Your task to perform on an android device: Open Youtube and go to "Your channel" Image 0: 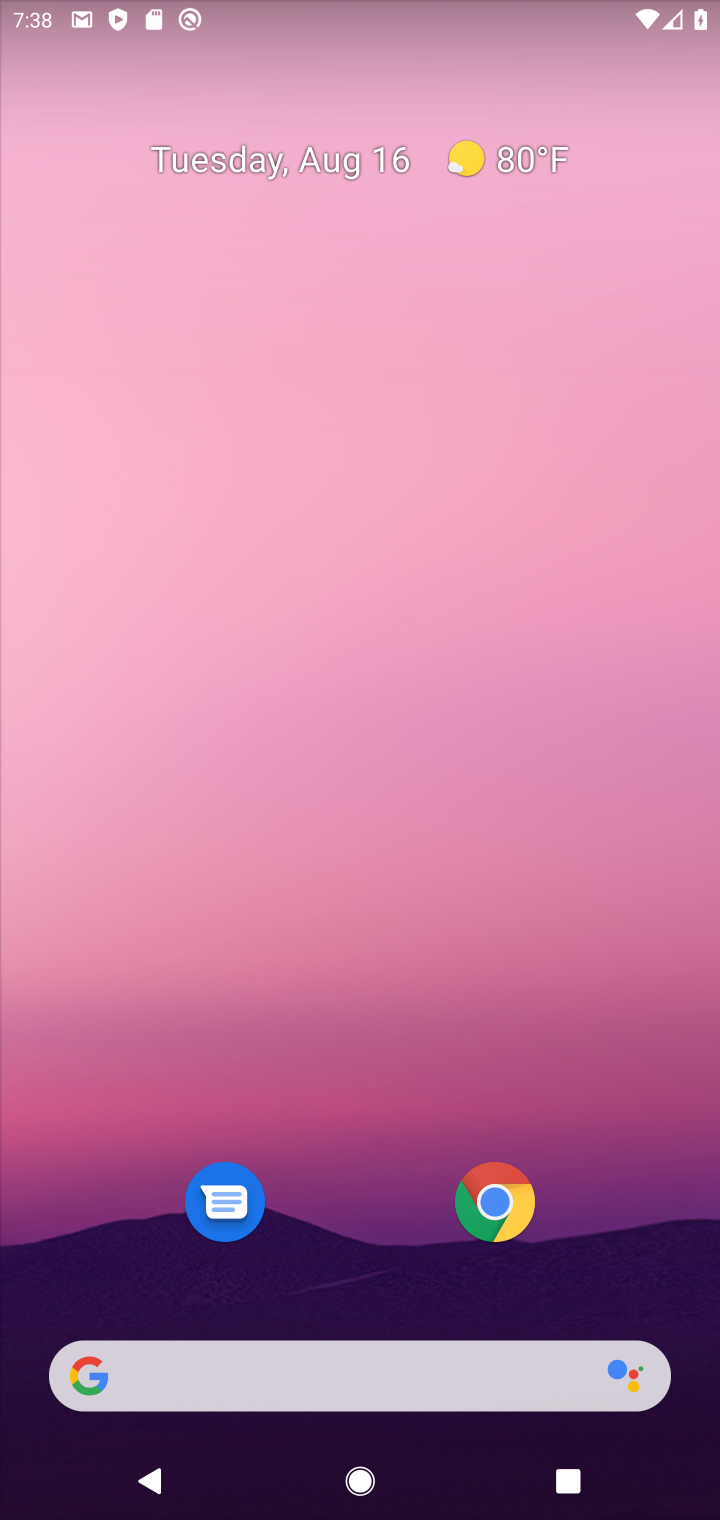
Step 0: drag from (361, 1324) to (410, 363)
Your task to perform on an android device: Open Youtube and go to "Your channel" Image 1: 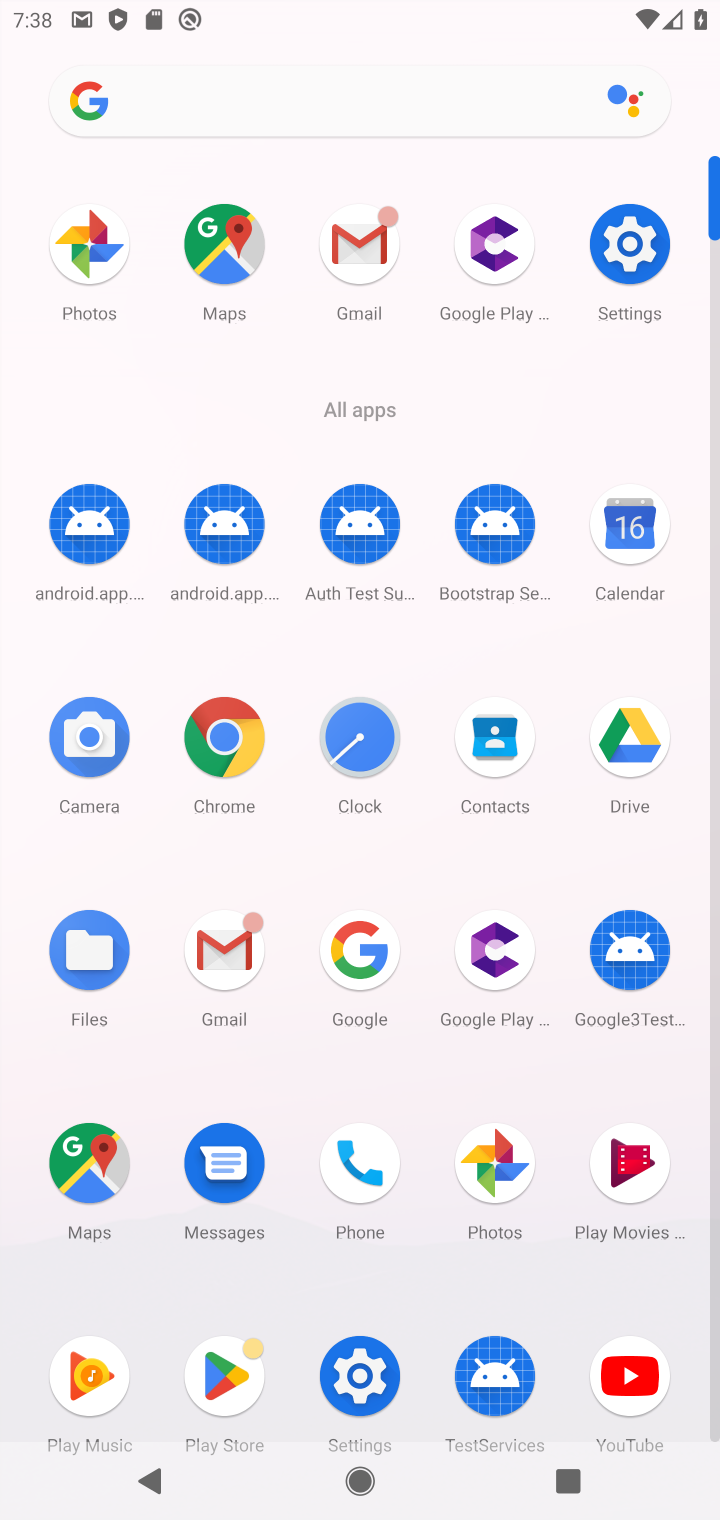
Step 1: click (601, 1380)
Your task to perform on an android device: Open Youtube and go to "Your channel" Image 2: 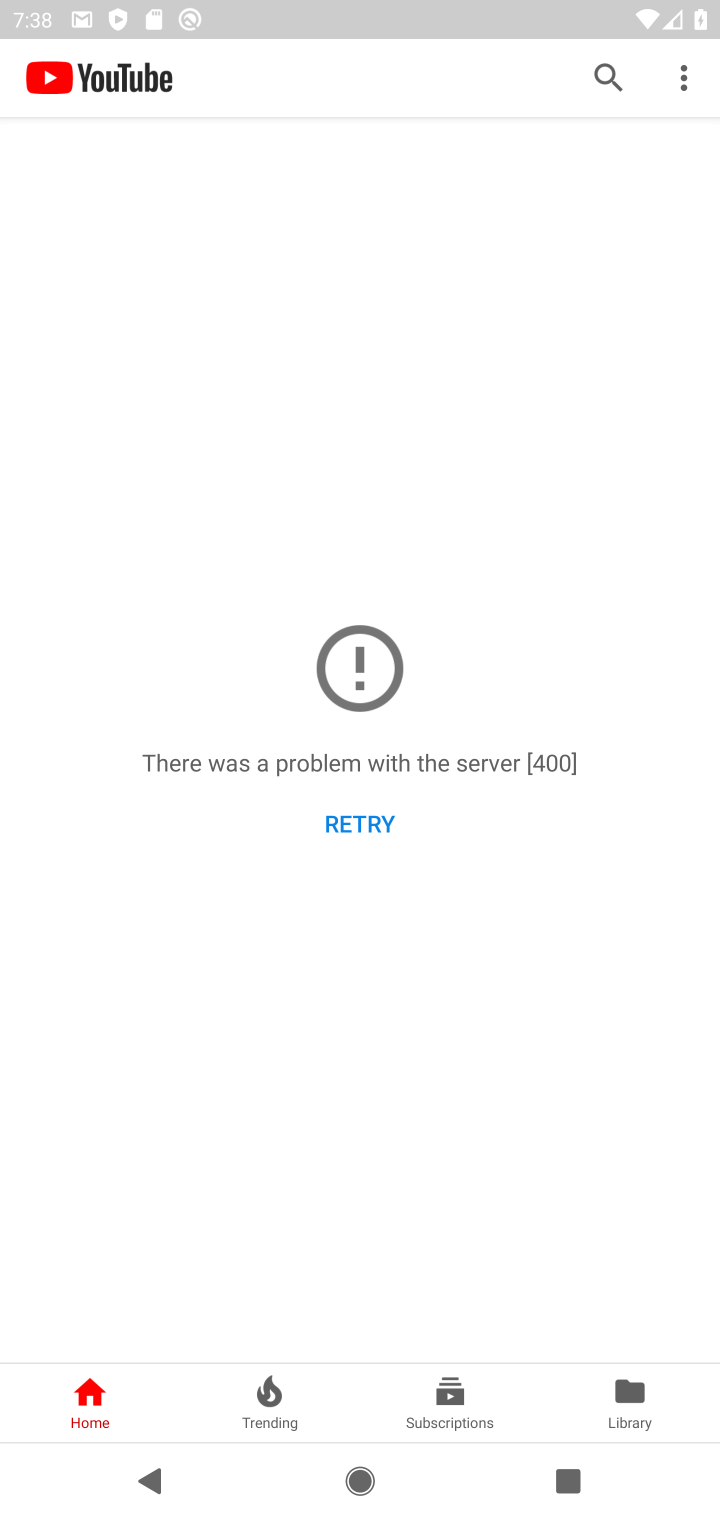
Step 2: click (614, 1375)
Your task to perform on an android device: Open Youtube and go to "Your channel" Image 3: 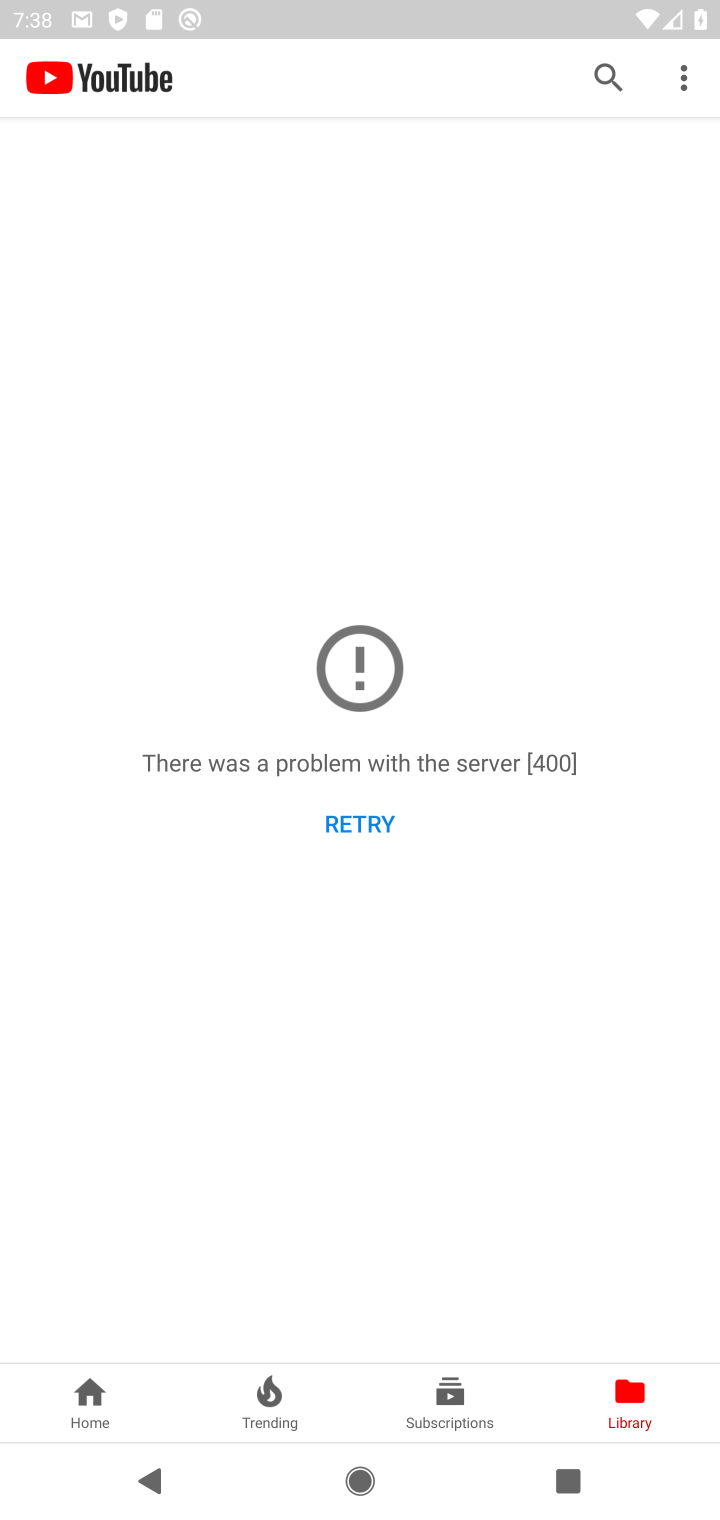
Step 3: click (679, 70)
Your task to perform on an android device: Open Youtube and go to "Your channel" Image 4: 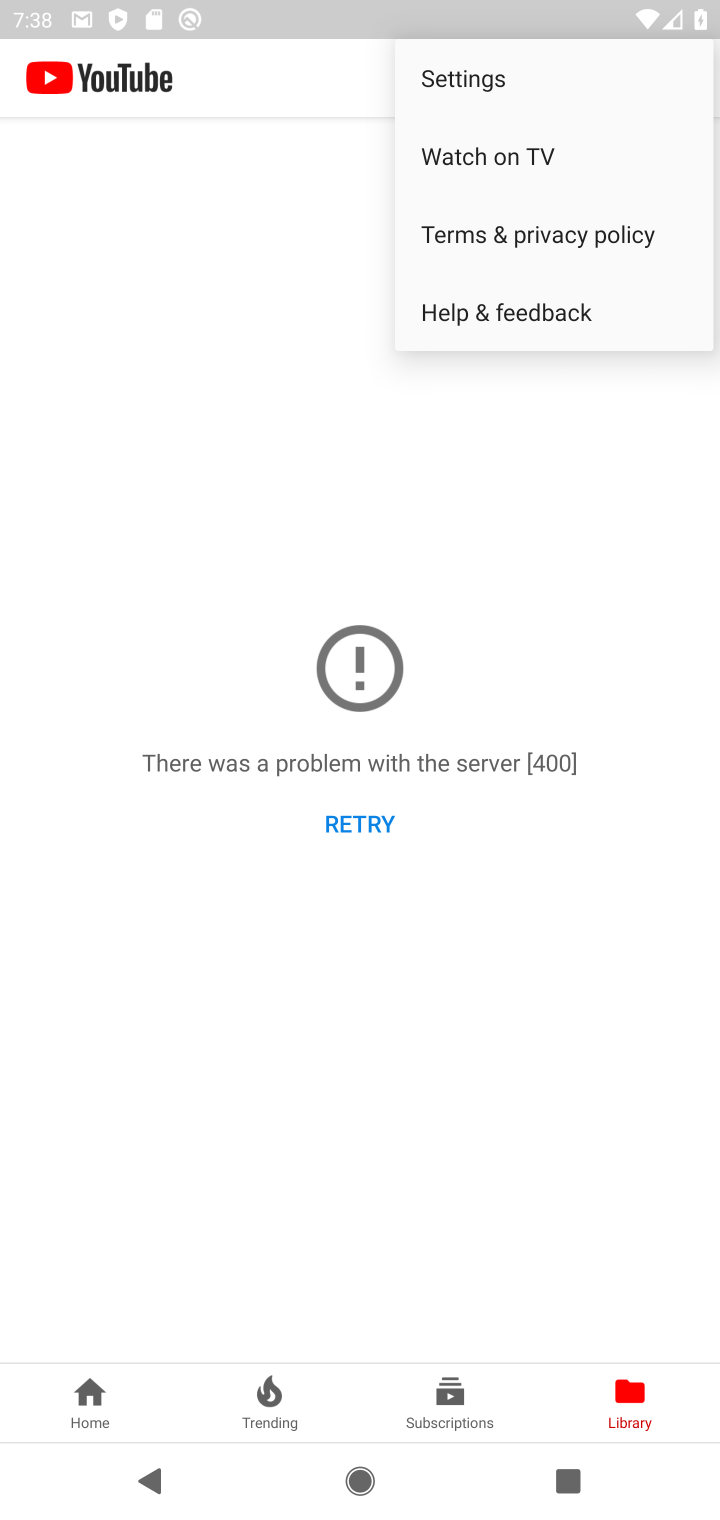
Step 4: click (464, 92)
Your task to perform on an android device: Open Youtube and go to "Your channel" Image 5: 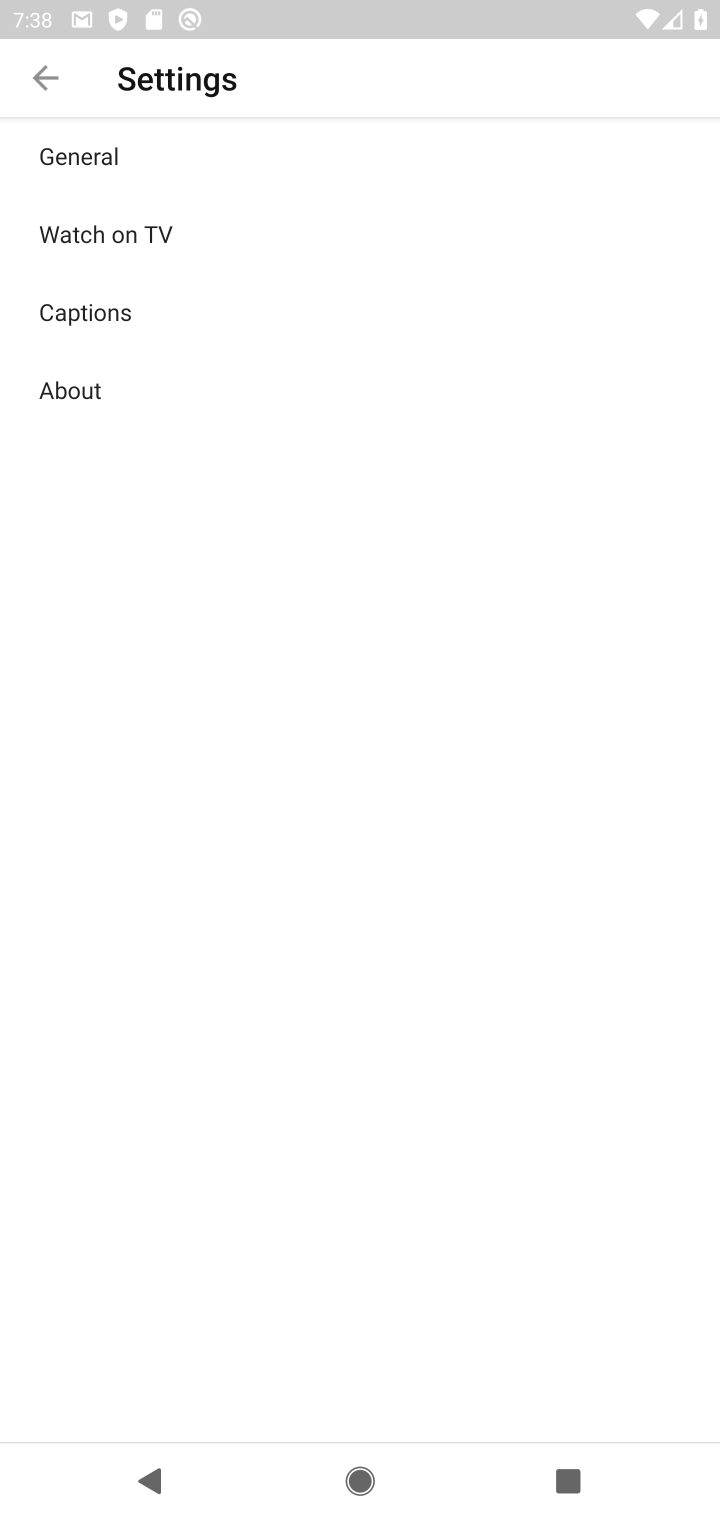
Step 5: click (41, 91)
Your task to perform on an android device: Open Youtube and go to "Your channel" Image 6: 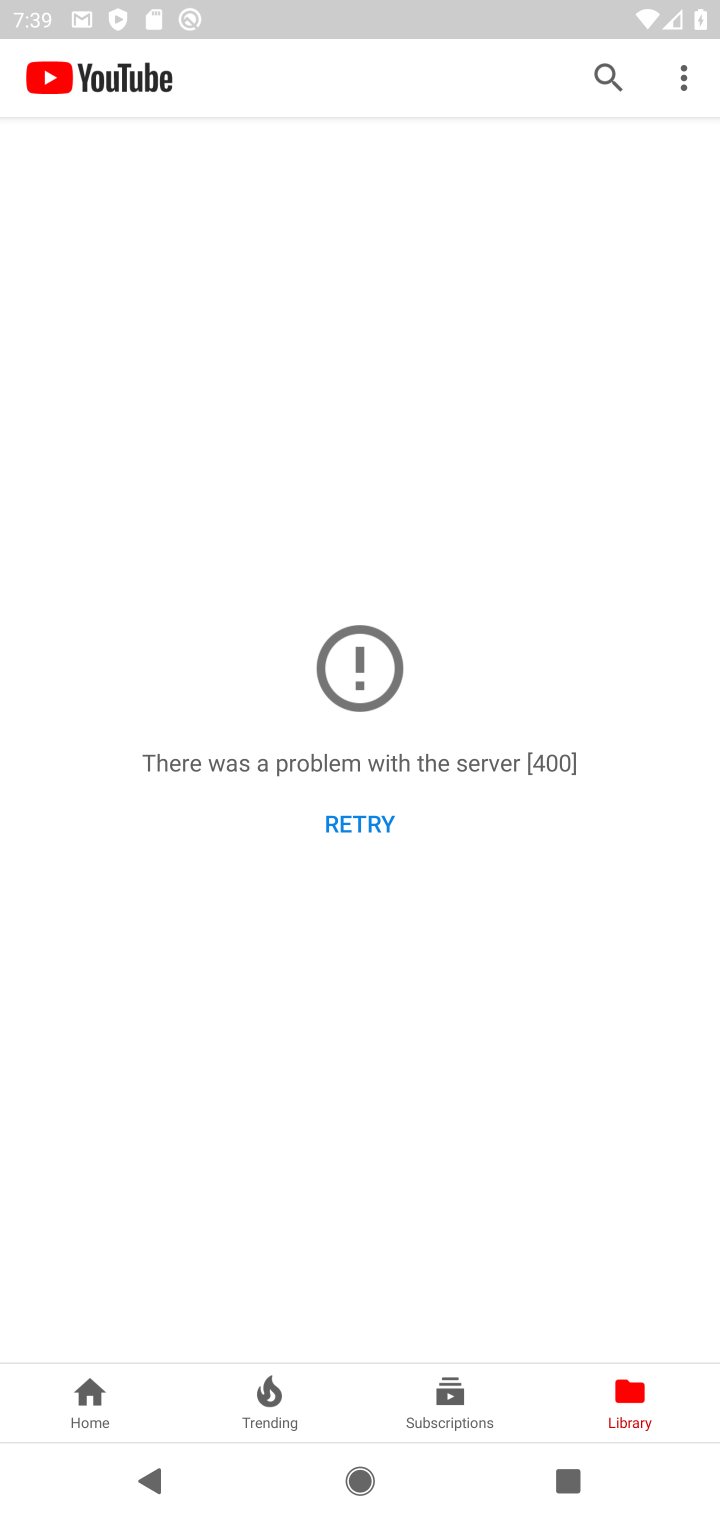
Step 6: task complete